Your task to perform on an android device: turn off translation in the chrome app Image 0: 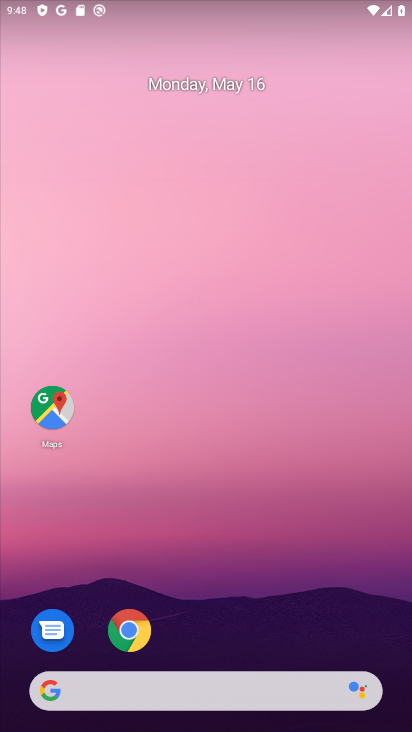
Step 0: click (127, 627)
Your task to perform on an android device: turn off translation in the chrome app Image 1: 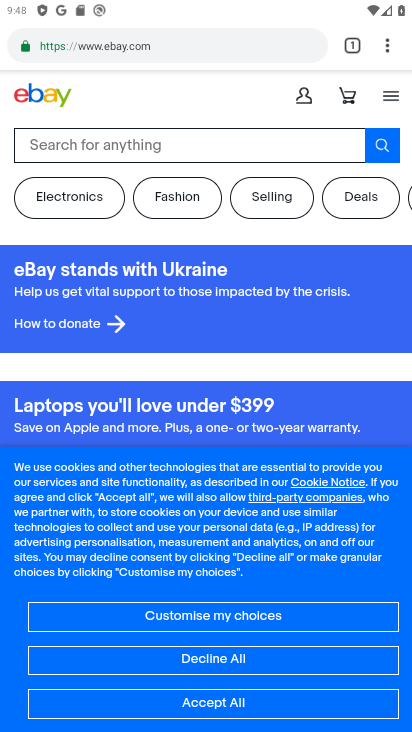
Step 1: click (388, 50)
Your task to perform on an android device: turn off translation in the chrome app Image 2: 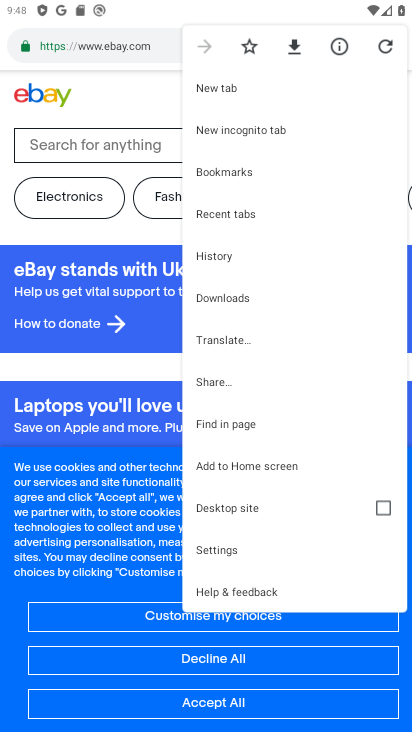
Step 2: click (221, 546)
Your task to perform on an android device: turn off translation in the chrome app Image 3: 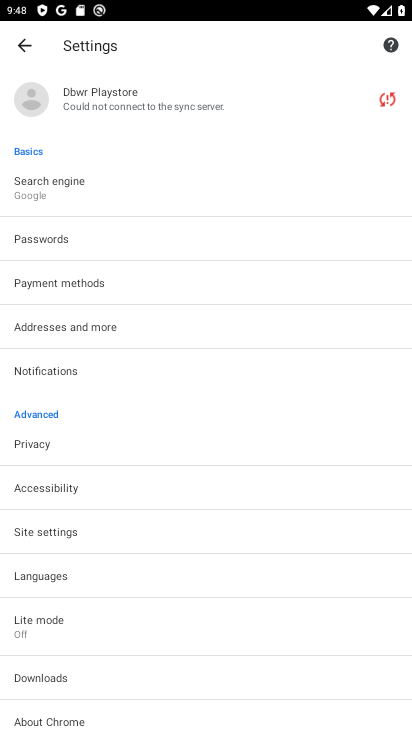
Step 3: click (74, 574)
Your task to perform on an android device: turn off translation in the chrome app Image 4: 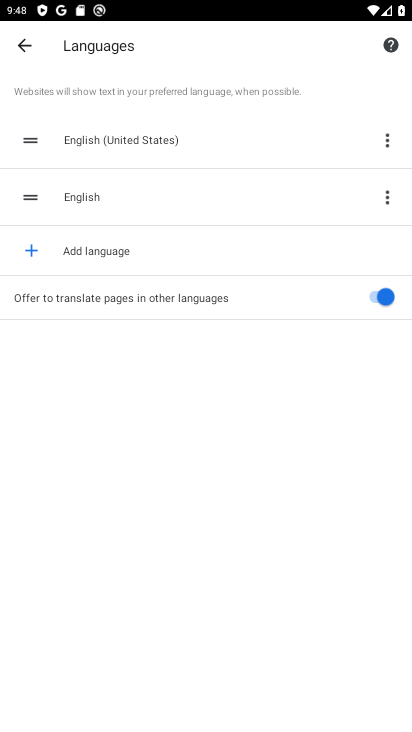
Step 4: click (363, 301)
Your task to perform on an android device: turn off translation in the chrome app Image 5: 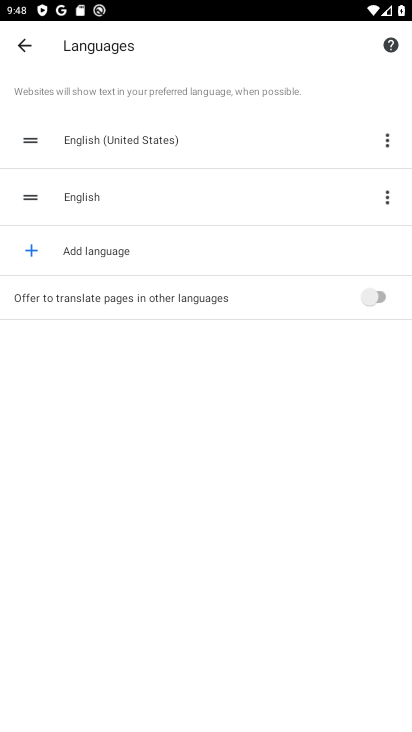
Step 5: task complete